Your task to perform on an android device: Open the Play Movies app and select the watchlist tab. Image 0: 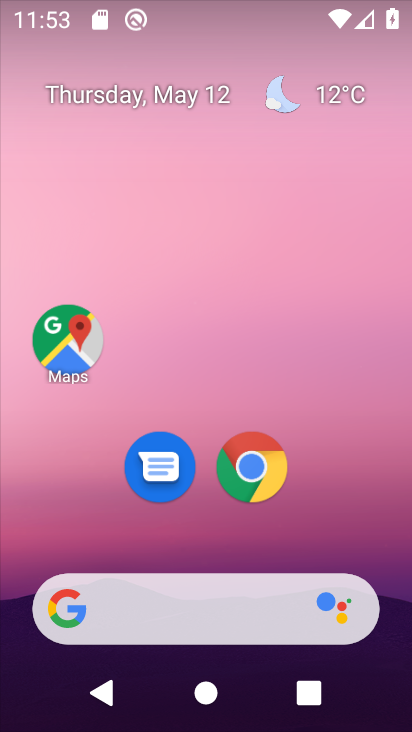
Step 0: drag from (341, 509) to (211, 53)
Your task to perform on an android device: Open the Play Movies app and select the watchlist tab. Image 1: 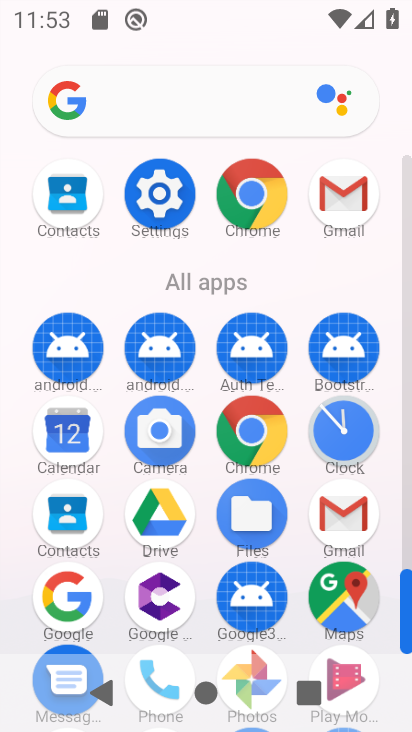
Step 1: drag from (297, 433) to (296, 257)
Your task to perform on an android device: Open the Play Movies app and select the watchlist tab. Image 2: 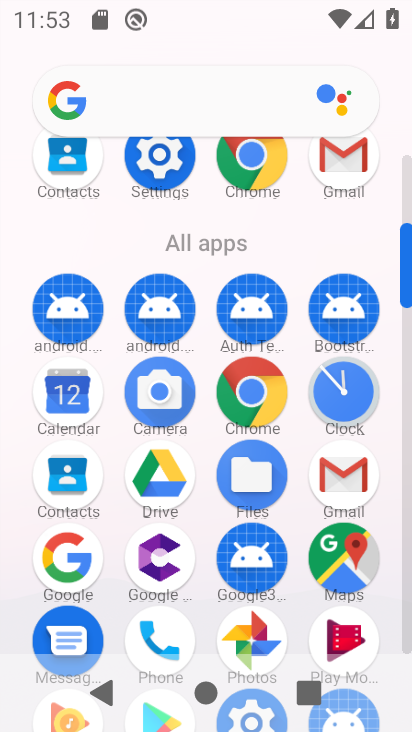
Step 2: click (346, 621)
Your task to perform on an android device: Open the Play Movies app and select the watchlist tab. Image 3: 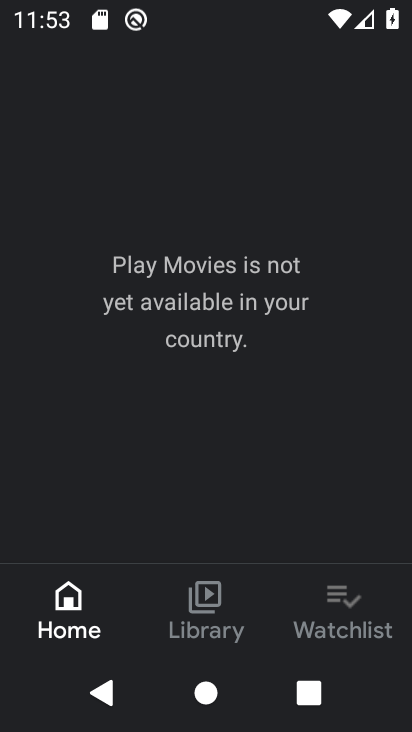
Step 3: click (367, 630)
Your task to perform on an android device: Open the Play Movies app and select the watchlist tab. Image 4: 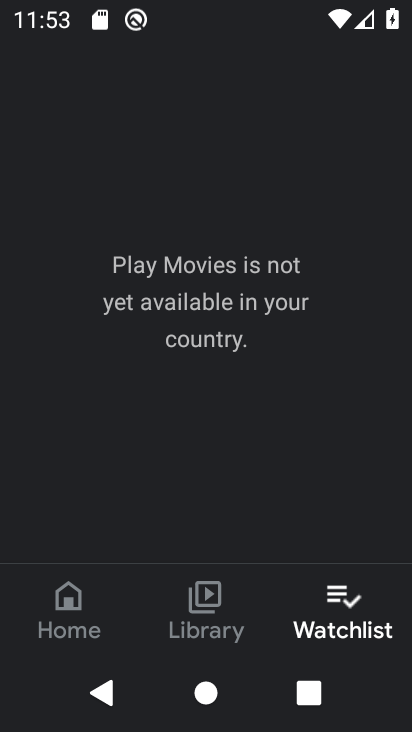
Step 4: task complete